Your task to perform on an android device: Open eBay Image 0: 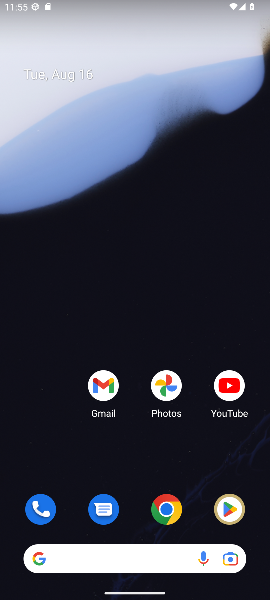
Step 0: press home button
Your task to perform on an android device: Open eBay Image 1: 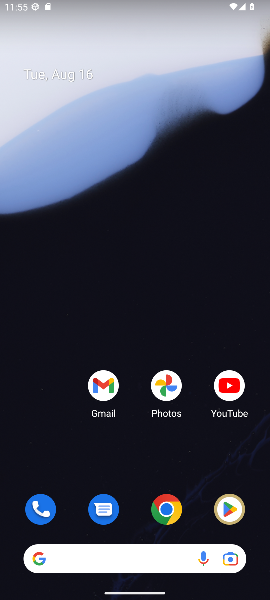
Step 1: click (34, 559)
Your task to perform on an android device: Open eBay Image 2: 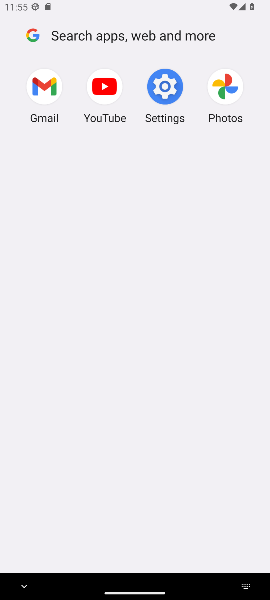
Step 2: press home button
Your task to perform on an android device: Open eBay Image 3: 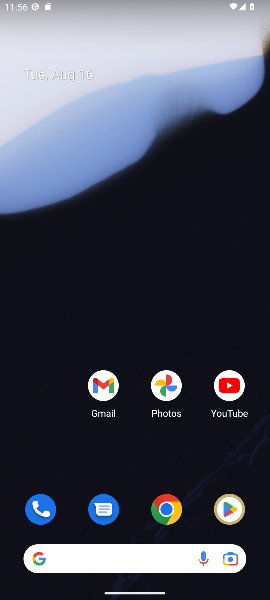
Step 3: drag from (139, 510) to (176, 56)
Your task to perform on an android device: Open eBay Image 4: 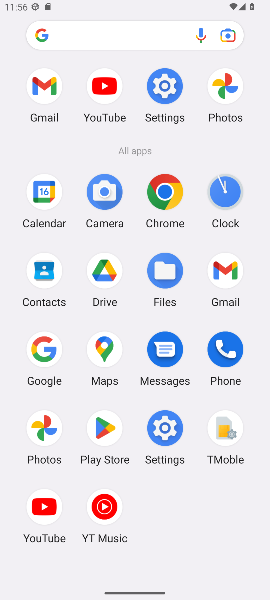
Step 4: click (46, 355)
Your task to perform on an android device: Open eBay Image 5: 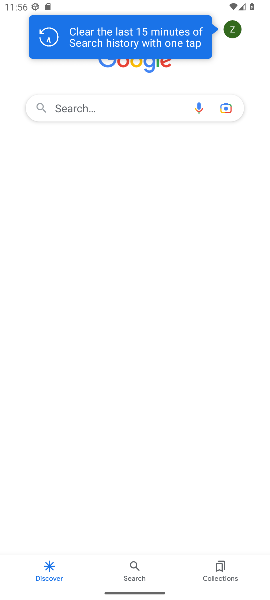
Step 5: click (118, 112)
Your task to perform on an android device: Open eBay Image 6: 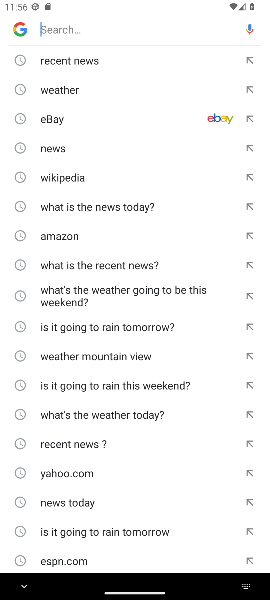
Step 6: click (51, 118)
Your task to perform on an android device: Open eBay Image 7: 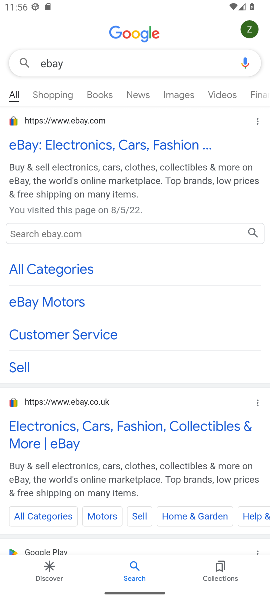
Step 7: click (83, 146)
Your task to perform on an android device: Open eBay Image 8: 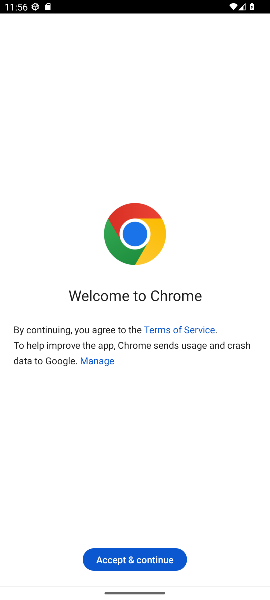
Step 8: click (138, 569)
Your task to perform on an android device: Open eBay Image 9: 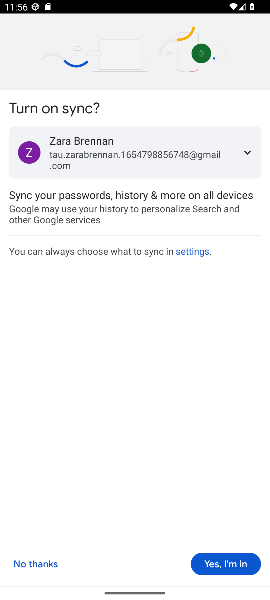
Step 9: click (219, 559)
Your task to perform on an android device: Open eBay Image 10: 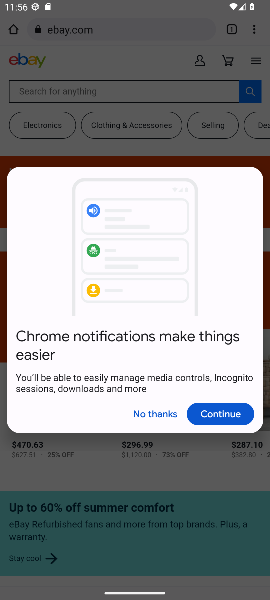
Step 10: click (223, 410)
Your task to perform on an android device: Open eBay Image 11: 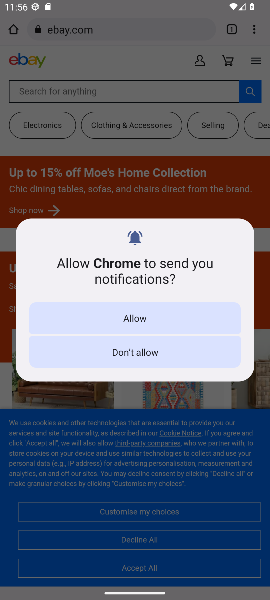
Step 11: click (163, 350)
Your task to perform on an android device: Open eBay Image 12: 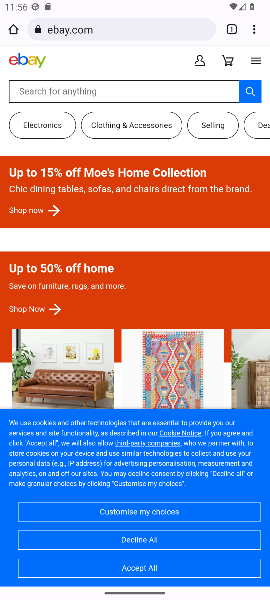
Step 12: task complete